Your task to perform on an android device: open device folders in google photos Image 0: 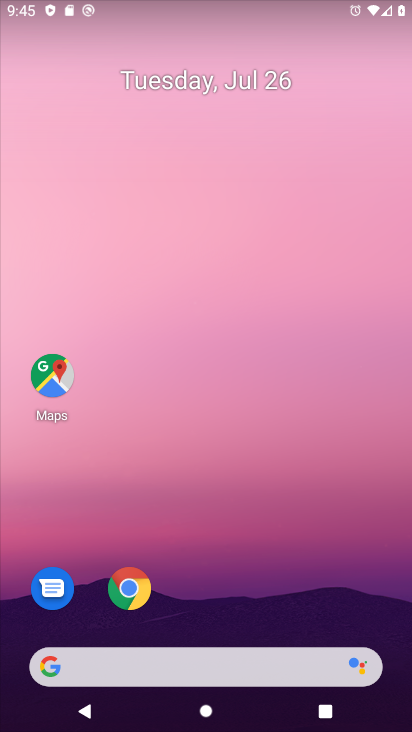
Step 0: drag from (199, 522) to (256, 9)
Your task to perform on an android device: open device folders in google photos Image 1: 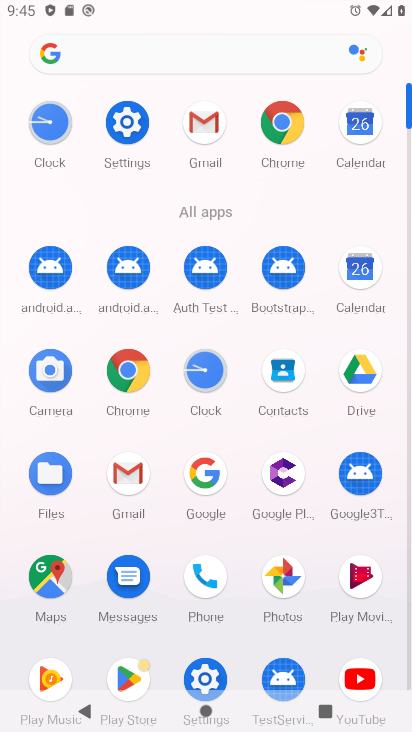
Step 1: click (279, 562)
Your task to perform on an android device: open device folders in google photos Image 2: 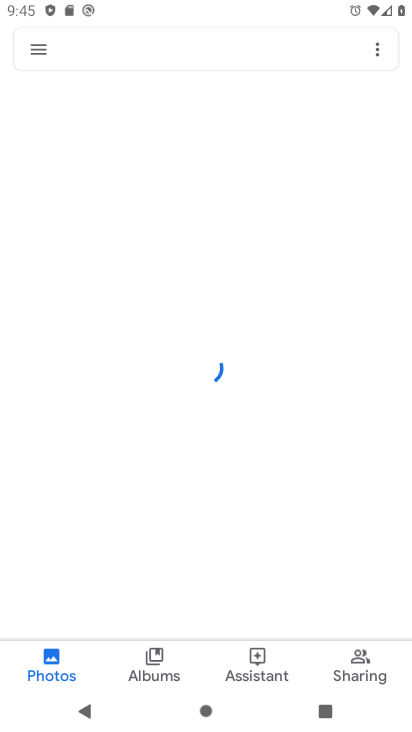
Step 2: click (23, 52)
Your task to perform on an android device: open device folders in google photos Image 3: 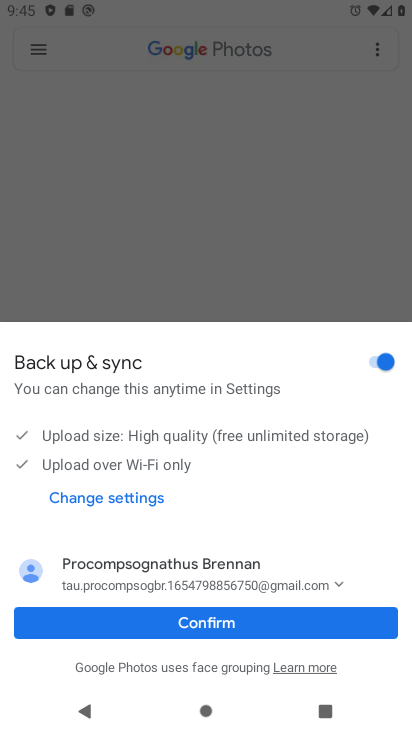
Step 3: click (189, 622)
Your task to perform on an android device: open device folders in google photos Image 4: 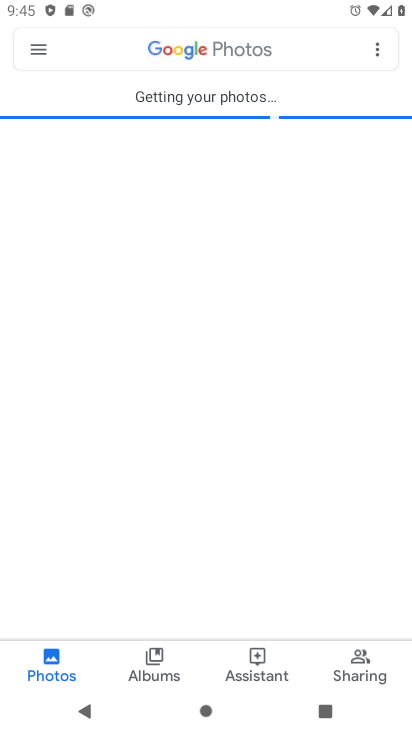
Step 4: click (33, 43)
Your task to perform on an android device: open device folders in google photos Image 5: 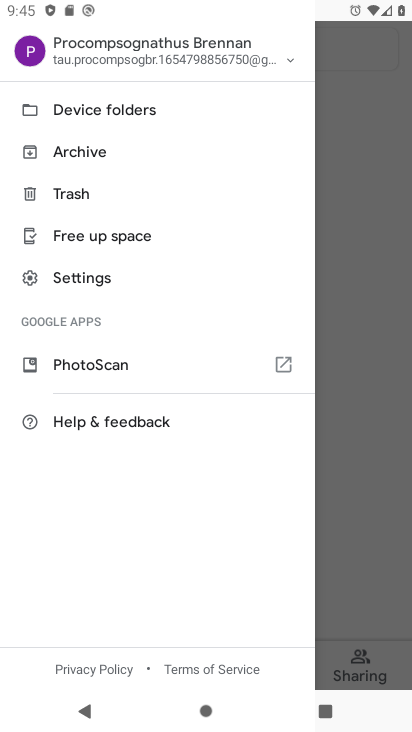
Step 5: click (103, 113)
Your task to perform on an android device: open device folders in google photos Image 6: 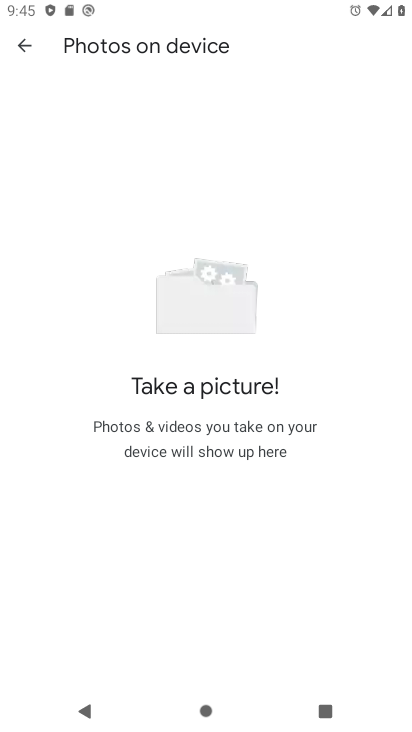
Step 6: task complete